Your task to perform on an android device: turn on data saver in the chrome app Image 0: 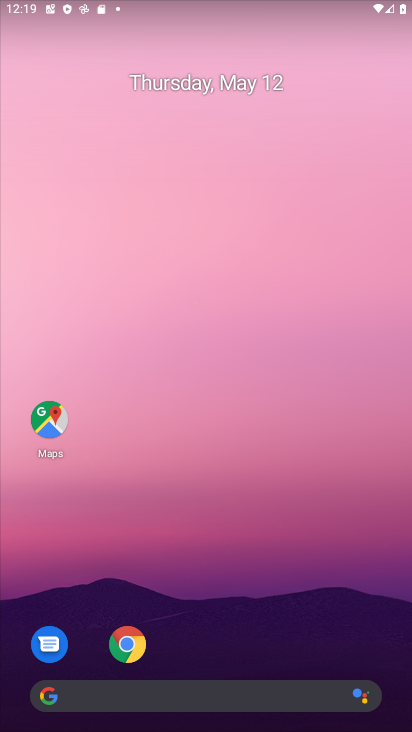
Step 0: click (293, 612)
Your task to perform on an android device: turn on data saver in the chrome app Image 1: 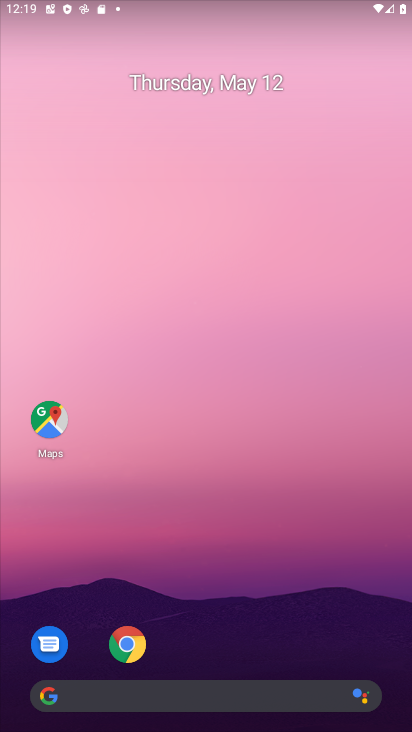
Step 1: click (138, 637)
Your task to perform on an android device: turn on data saver in the chrome app Image 2: 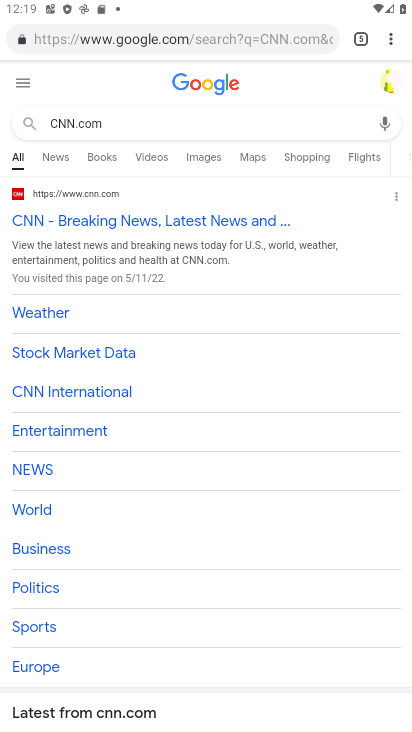
Step 2: click (399, 43)
Your task to perform on an android device: turn on data saver in the chrome app Image 3: 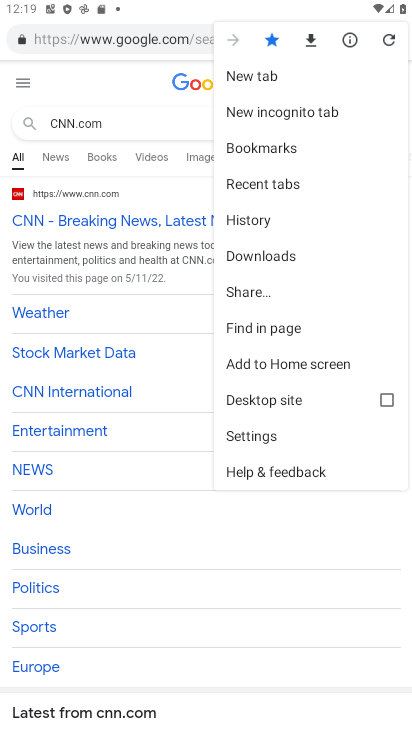
Step 3: click (281, 426)
Your task to perform on an android device: turn on data saver in the chrome app Image 4: 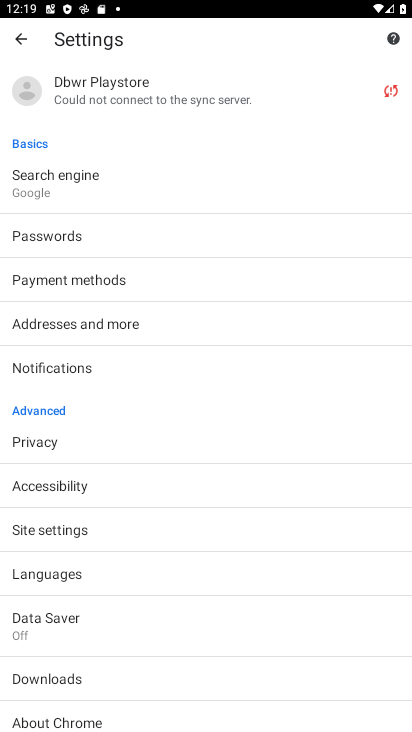
Step 4: click (123, 622)
Your task to perform on an android device: turn on data saver in the chrome app Image 5: 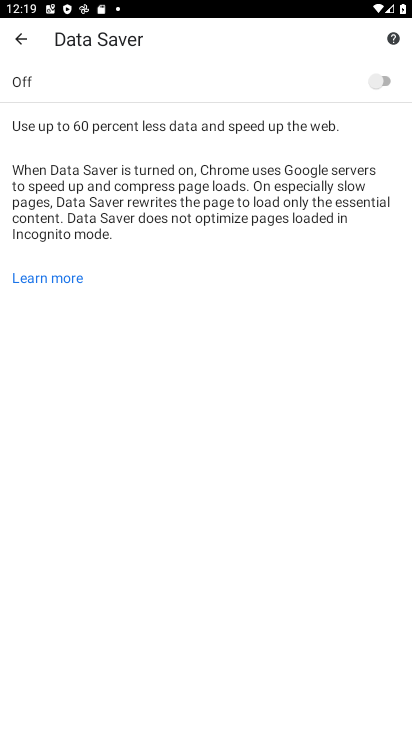
Step 5: click (379, 72)
Your task to perform on an android device: turn on data saver in the chrome app Image 6: 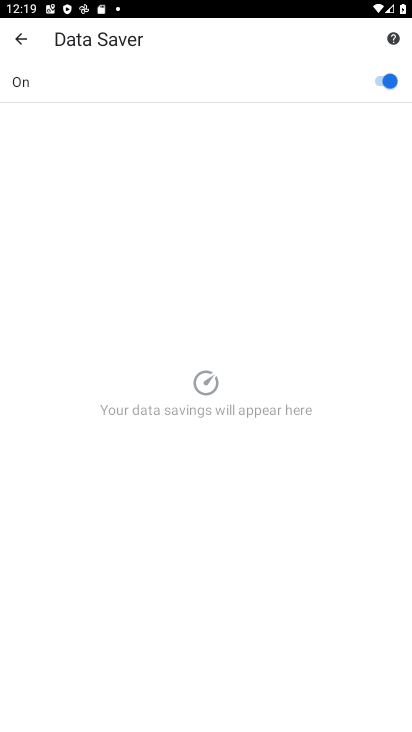
Step 6: task complete